Your task to perform on an android device: open sync settings in chrome Image 0: 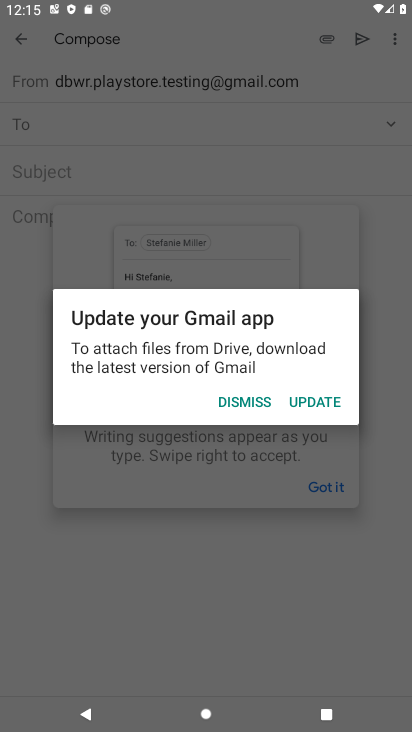
Step 0: press home button
Your task to perform on an android device: open sync settings in chrome Image 1: 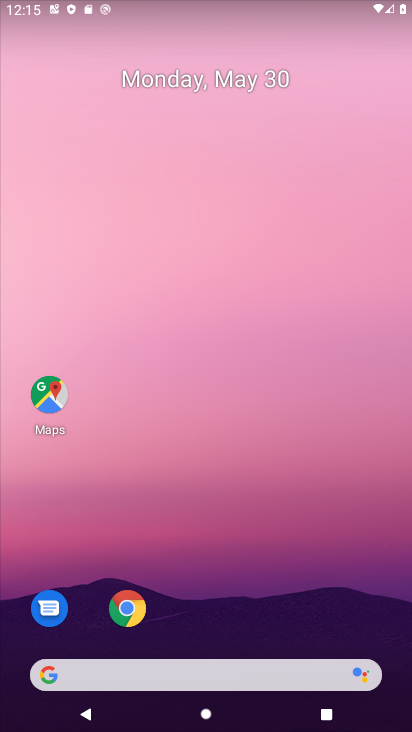
Step 1: click (125, 600)
Your task to perform on an android device: open sync settings in chrome Image 2: 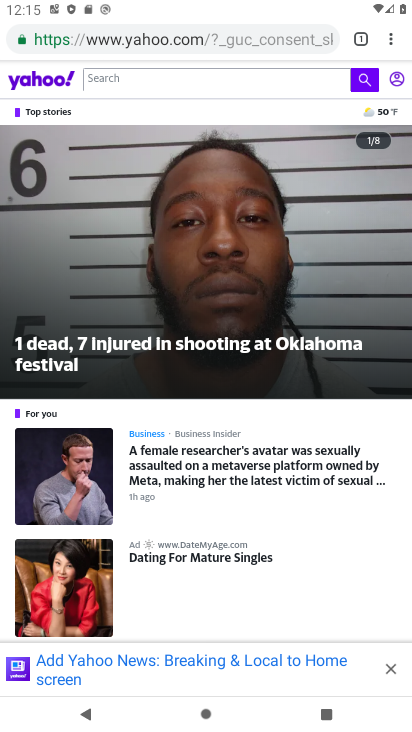
Step 2: click (396, 40)
Your task to perform on an android device: open sync settings in chrome Image 3: 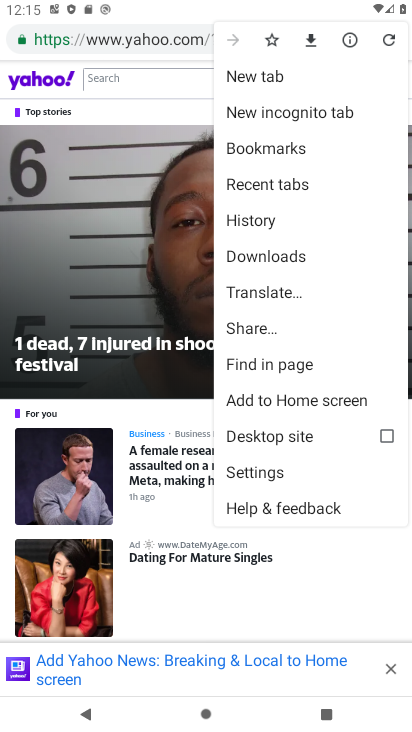
Step 3: click (277, 472)
Your task to perform on an android device: open sync settings in chrome Image 4: 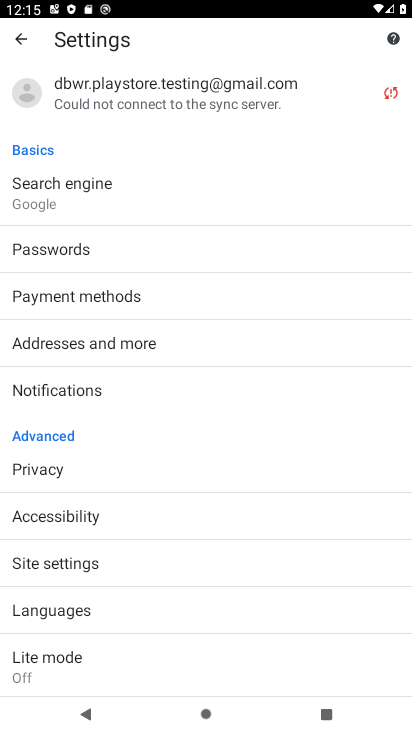
Step 4: click (172, 98)
Your task to perform on an android device: open sync settings in chrome Image 5: 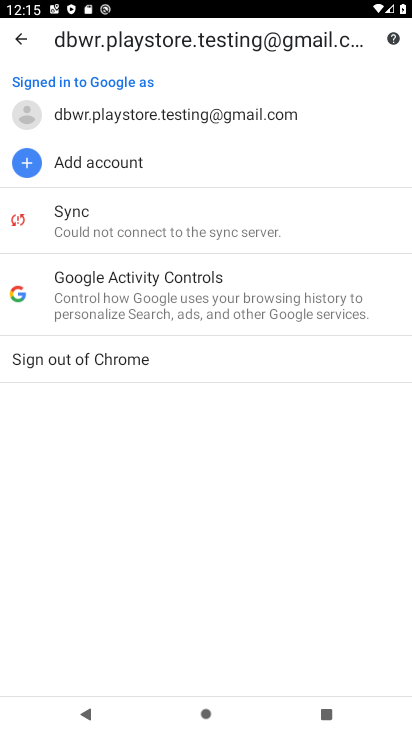
Step 5: click (160, 226)
Your task to perform on an android device: open sync settings in chrome Image 6: 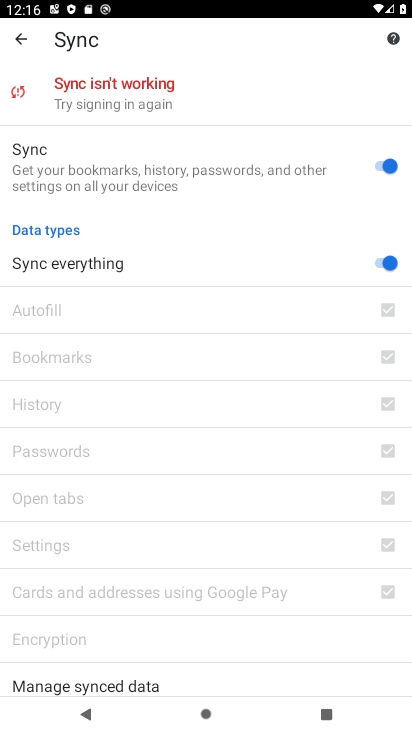
Step 6: task complete